Your task to perform on an android device: Open Google Chrome Image 0: 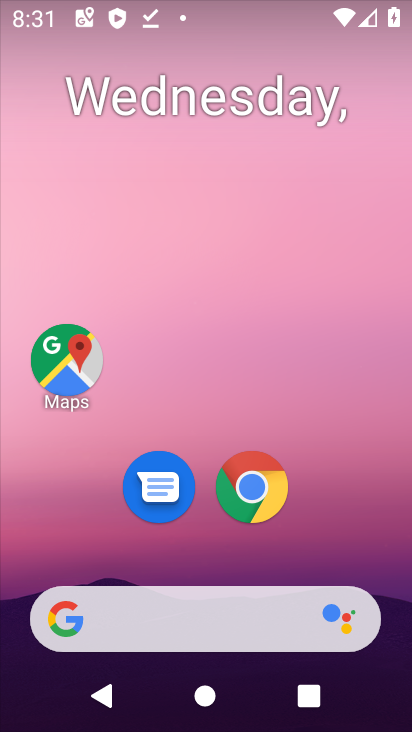
Step 0: drag from (245, 719) to (157, 269)
Your task to perform on an android device: Open Google Chrome Image 1: 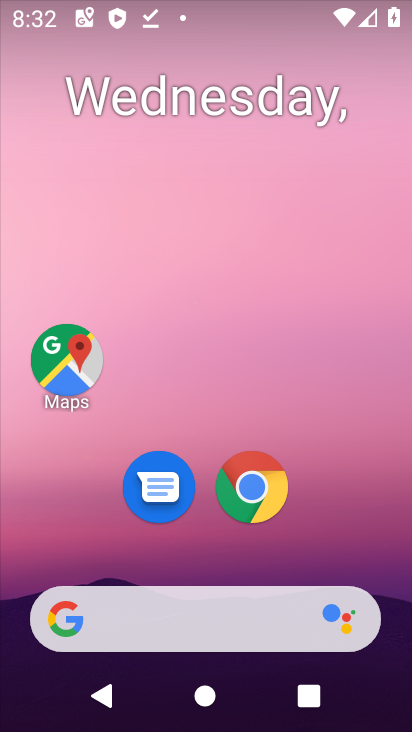
Step 1: drag from (243, 716) to (138, 43)
Your task to perform on an android device: Open Google Chrome Image 2: 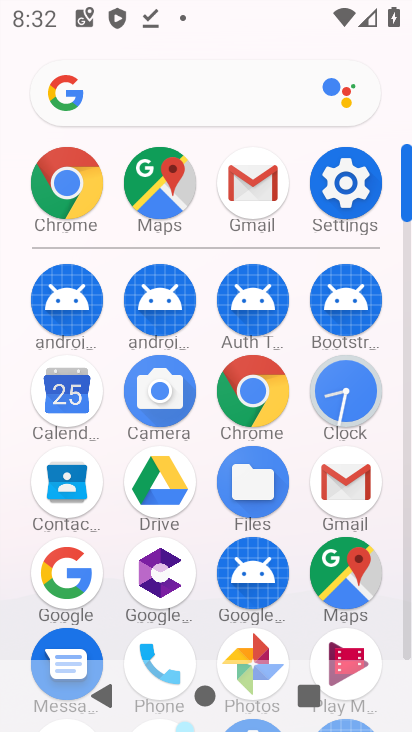
Step 2: click (67, 189)
Your task to perform on an android device: Open Google Chrome Image 3: 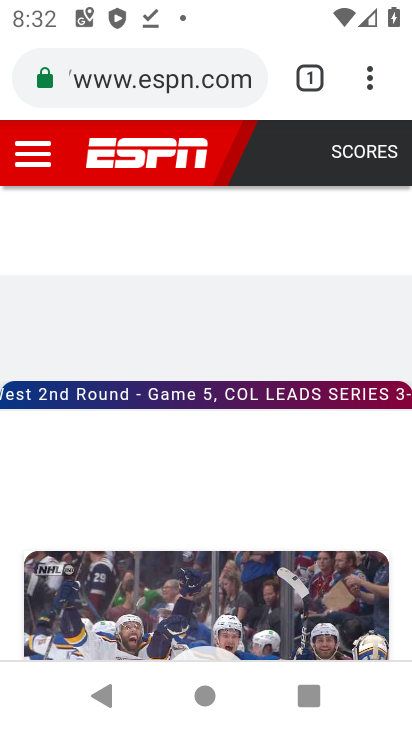
Step 3: task complete